Your task to perform on an android device: open sync settings in chrome Image 0: 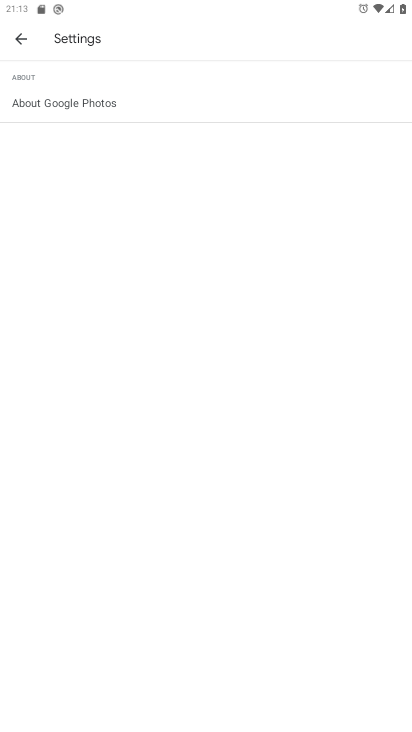
Step 0: press home button
Your task to perform on an android device: open sync settings in chrome Image 1: 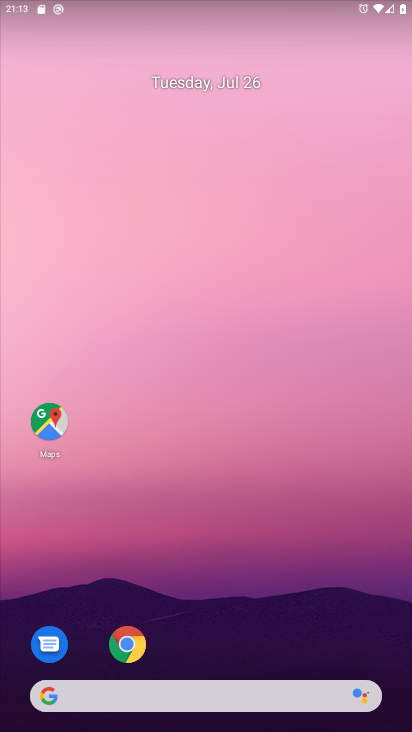
Step 1: drag from (214, 602) to (232, 220)
Your task to perform on an android device: open sync settings in chrome Image 2: 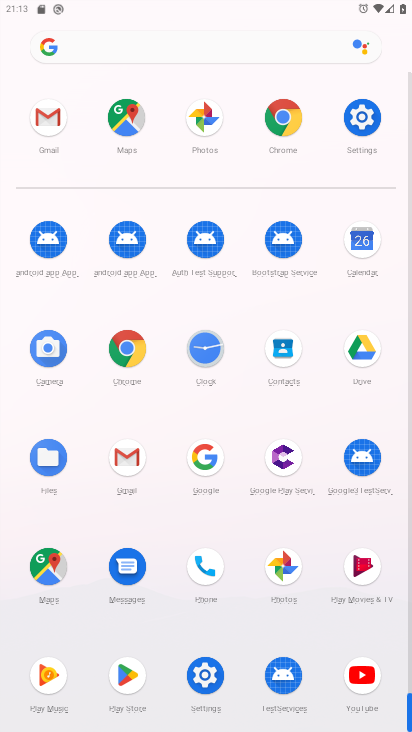
Step 2: click (121, 344)
Your task to perform on an android device: open sync settings in chrome Image 3: 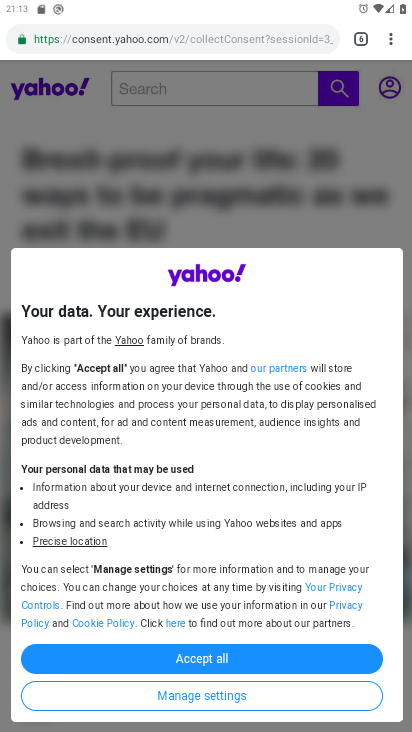
Step 3: click (388, 35)
Your task to perform on an android device: open sync settings in chrome Image 4: 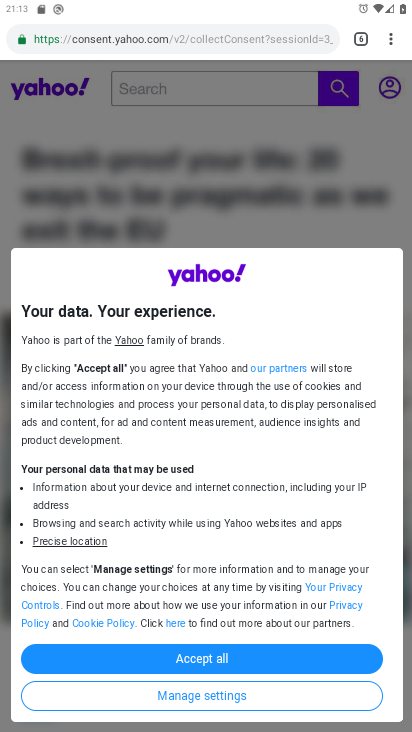
Step 4: click (391, 38)
Your task to perform on an android device: open sync settings in chrome Image 5: 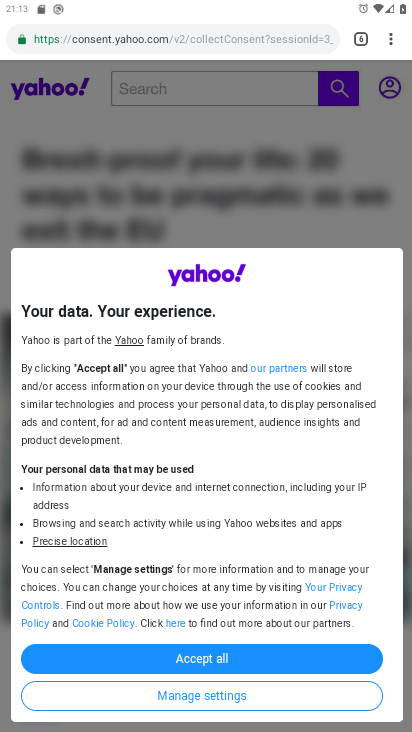
Step 5: click (391, 38)
Your task to perform on an android device: open sync settings in chrome Image 6: 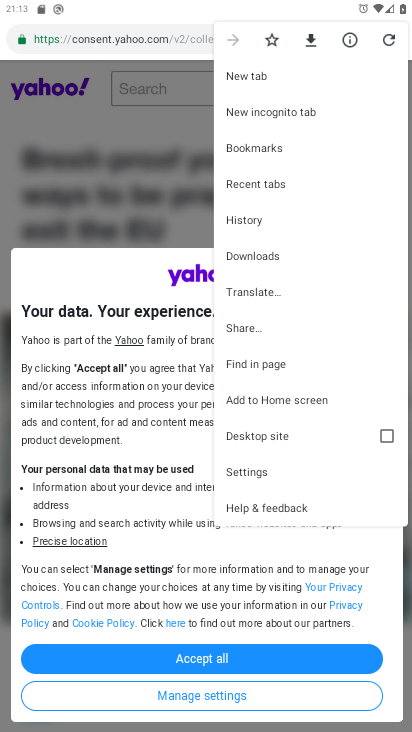
Step 6: click (259, 469)
Your task to perform on an android device: open sync settings in chrome Image 7: 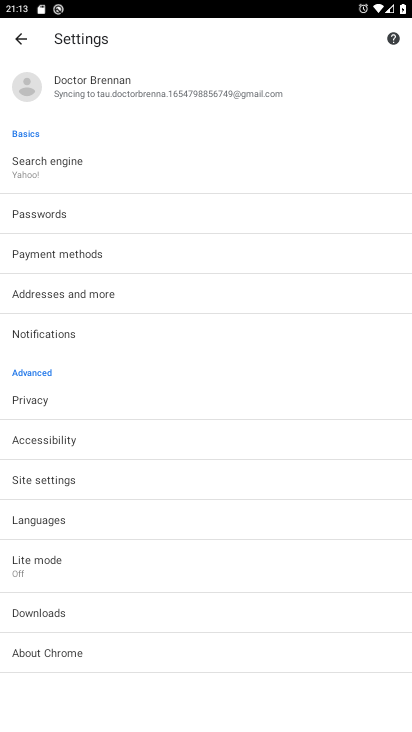
Step 7: click (113, 99)
Your task to perform on an android device: open sync settings in chrome Image 8: 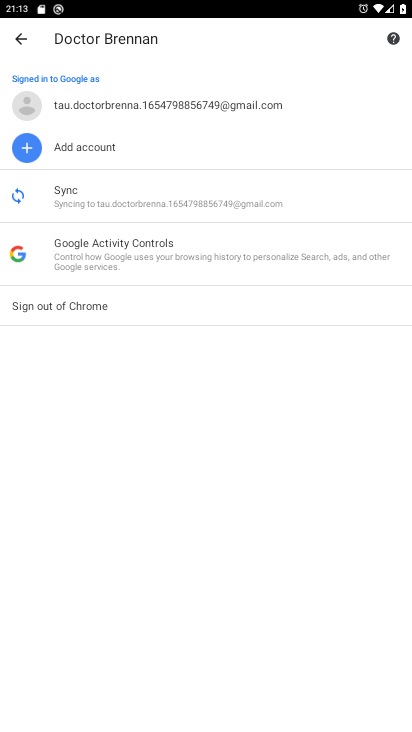
Step 8: click (58, 187)
Your task to perform on an android device: open sync settings in chrome Image 9: 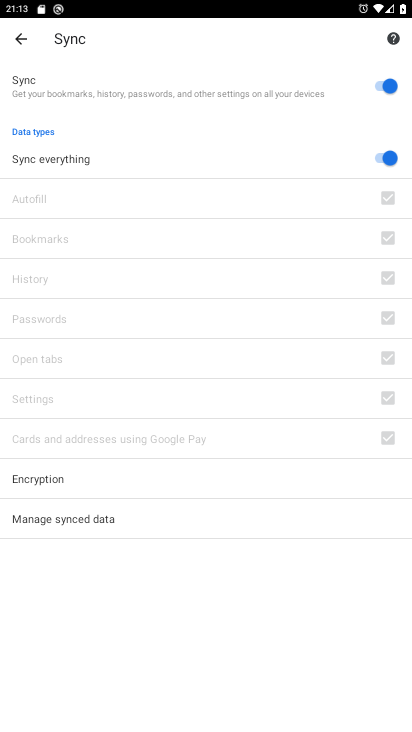
Step 9: task complete